Your task to perform on an android device: turn on the 12-hour format for clock Image 0: 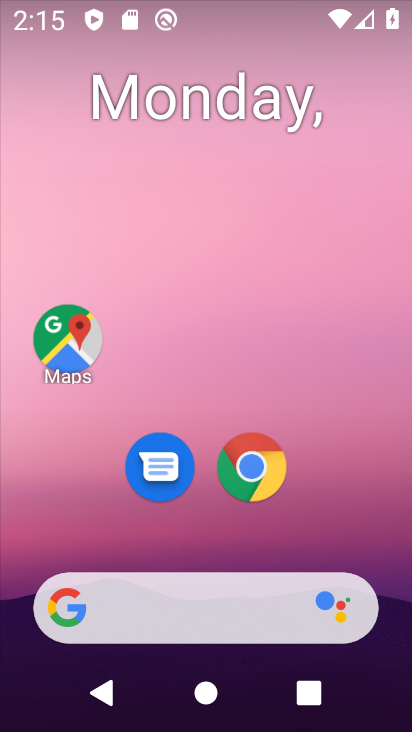
Step 0: drag from (345, 538) to (247, 108)
Your task to perform on an android device: turn on the 12-hour format for clock Image 1: 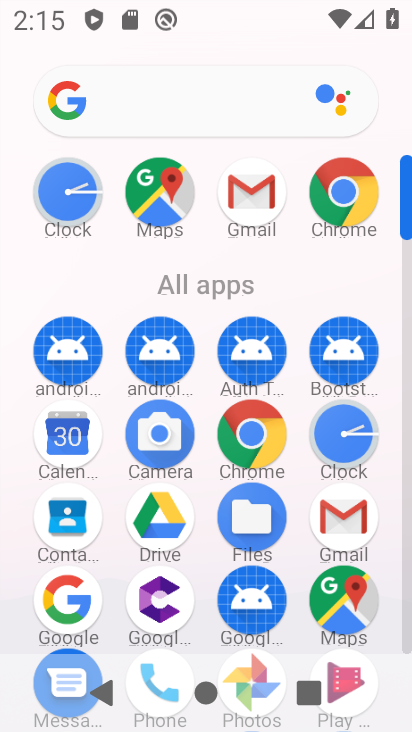
Step 1: click (364, 456)
Your task to perform on an android device: turn on the 12-hour format for clock Image 2: 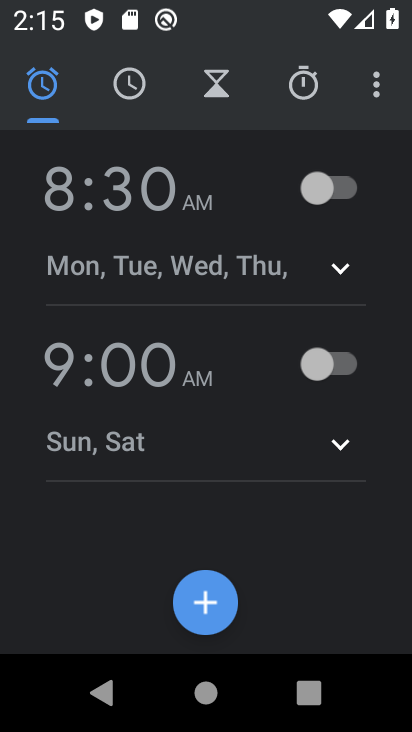
Step 2: click (387, 104)
Your task to perform on an android device: turn on the 12-hour format for clock Image 3: 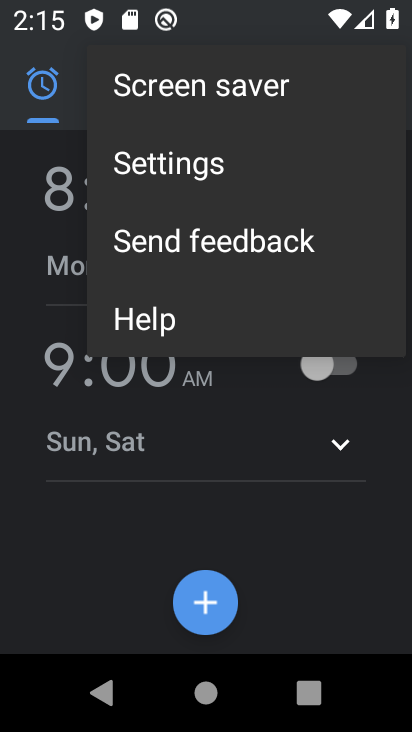
Step 3: click (298, 161)
Your task to perform on an android device: turn on the 12-hour format for clock Image 4: 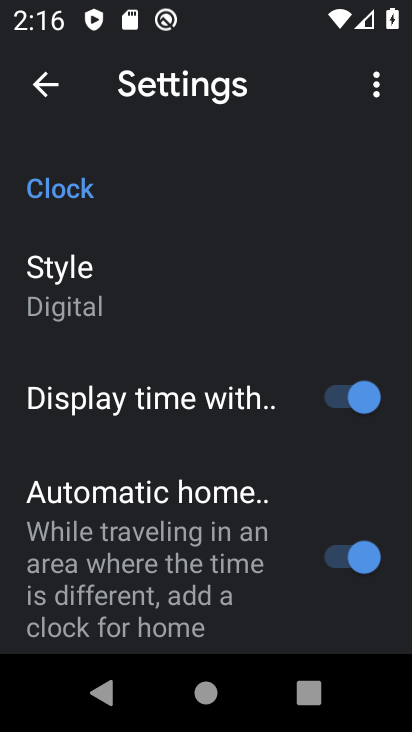
Step 4: drag from (263, 507) to (227, 117)
Your task to perform on an android device: turn on the 12-hour format for clock Image 5: 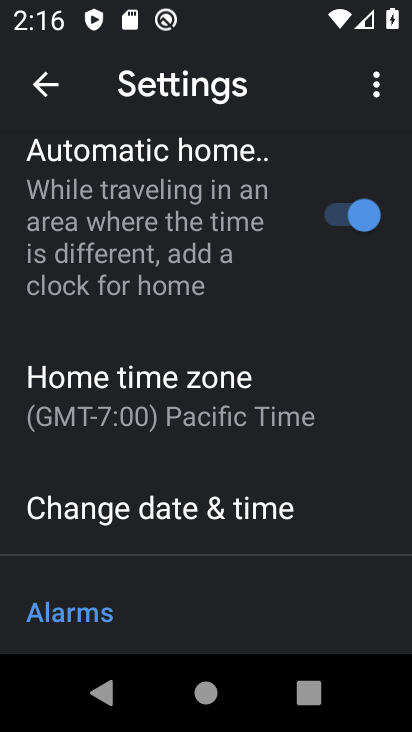
Step 5: click (290, 510)
Your task to perform on an android device: turn on the 12-hour format for clock Image 6: 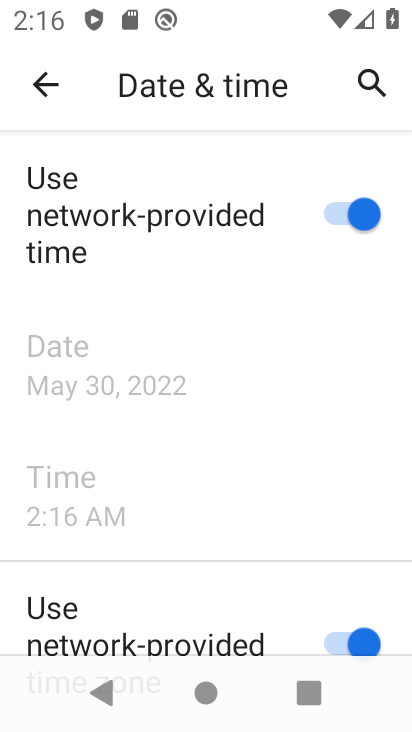
Step 6: task complete